Your task to perform on an android device: Go to network settings Image 0: 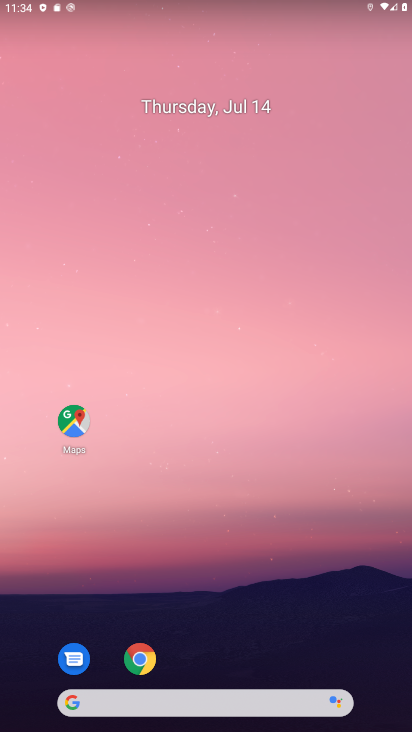
Step 0: drag from (305, 616) to (289, 145)
Your task to perform on an android device: Go to network settings Image 1: 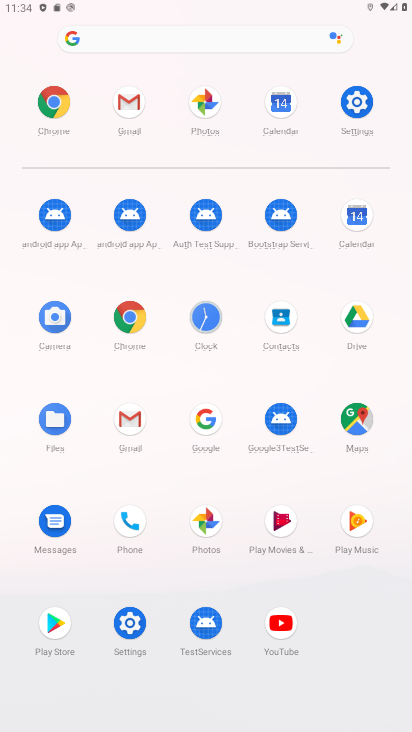
Step 1: click (360, 93)
Your task to perform on an android device: Go to network settings Image 2: 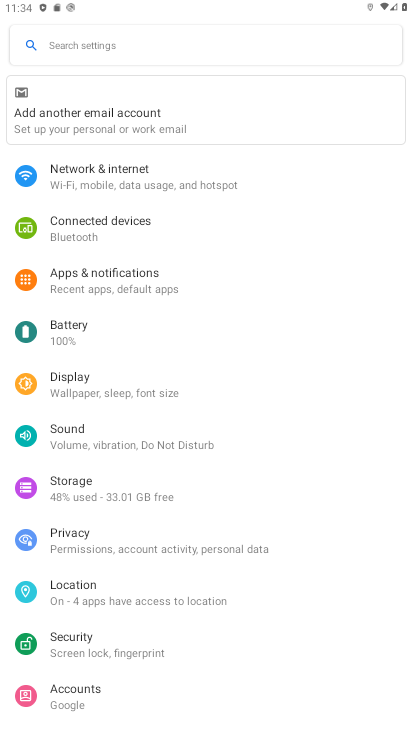
Step 2: click (67, 165)
Your task to perform on an android device: Go to network settings Image 3: 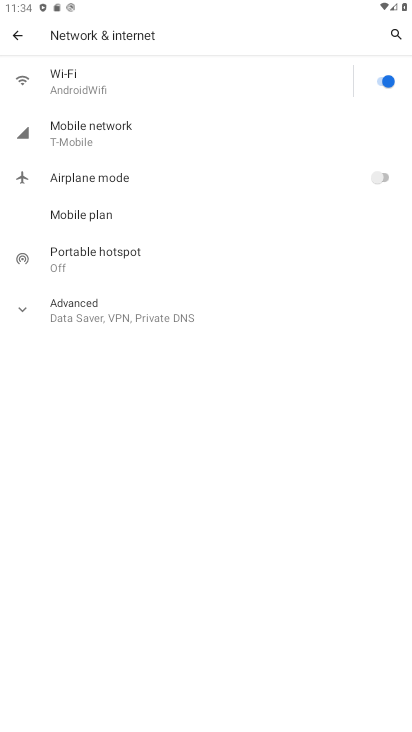
Step 3: task complete